Your task to perform on an android device: Search for vegetarian restaurants on Maps Image 0: 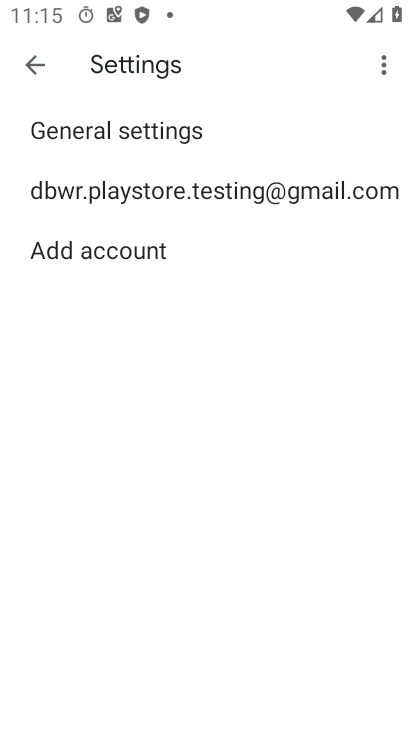
Step 0: click (27, 75)
Your task to perform on an android device: Search for vegetarian restaurants on Maps Image 1: 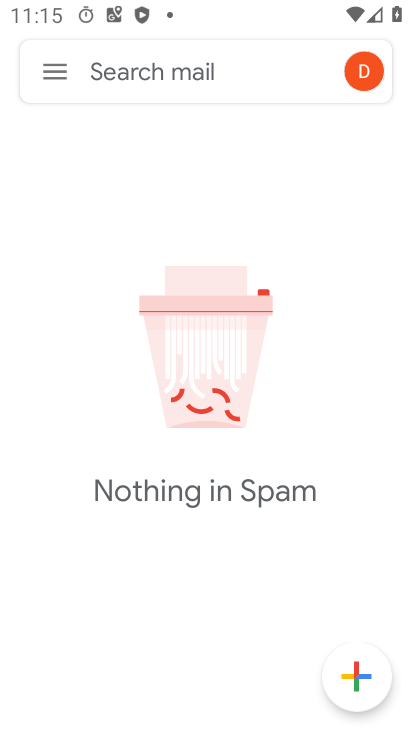
Step 1: press home button
Your task to perform on an android device: Search for vegetarian restaurants on Maps Image 2: 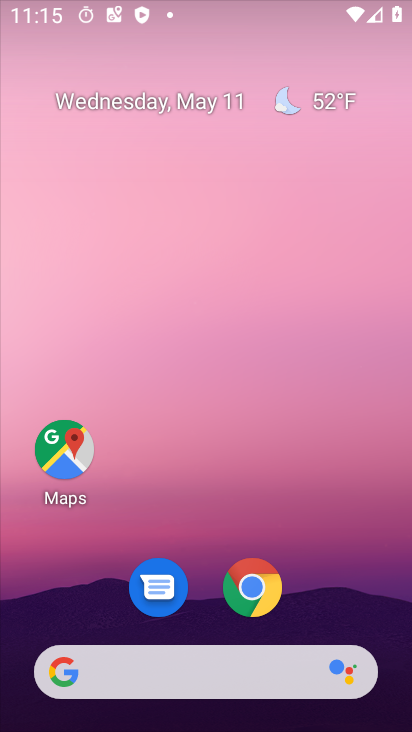
Step 2: drag from (240, 692) to (316, 274)
Your task to perform on an android device: Search for vegetarian restaurants on Maps Image 3: 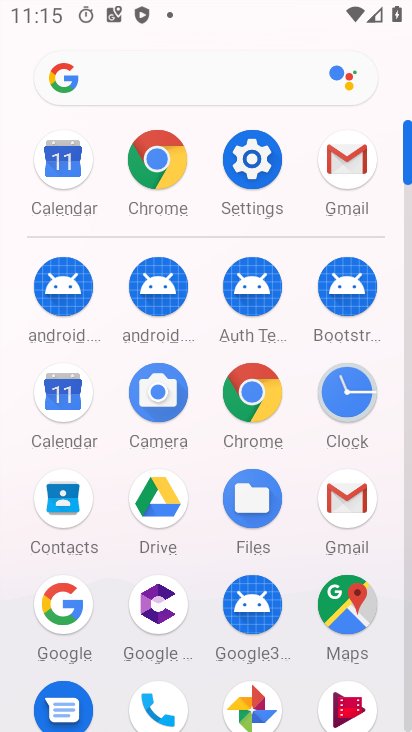
Step 3: click (346, 587)
Your task to perform on an android device: Search for vegetarian restaurants on Maps Image 4: 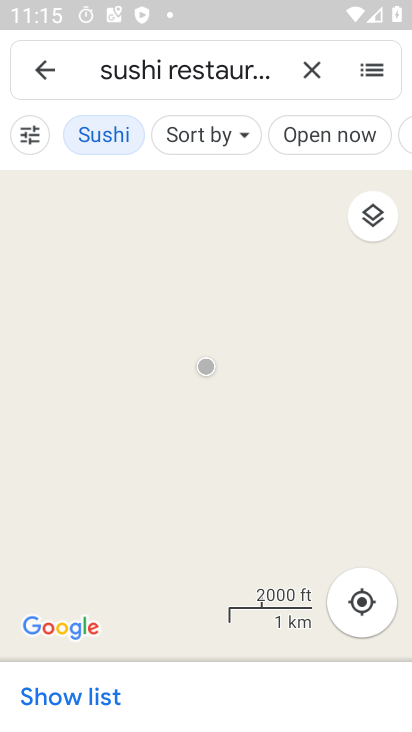
Step 4: click (307, 70)
Your task to perform on an android device: Search for vegetarian restaurants on Maps Image 5: 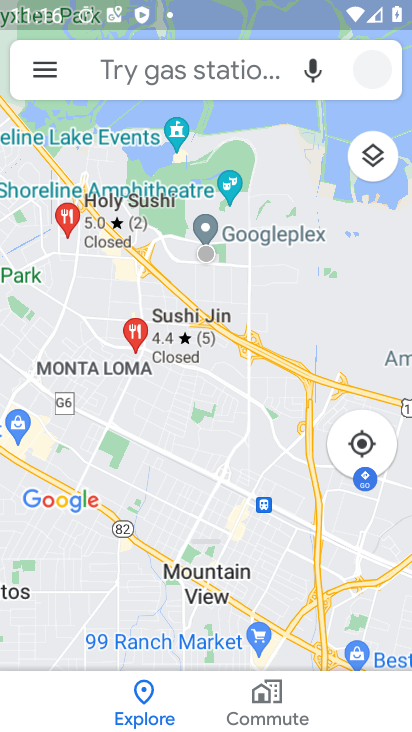
Step 5: click (172, 79)
Your task to perform on an android device: Search for vegetarian restaurants on Maps Image 6: 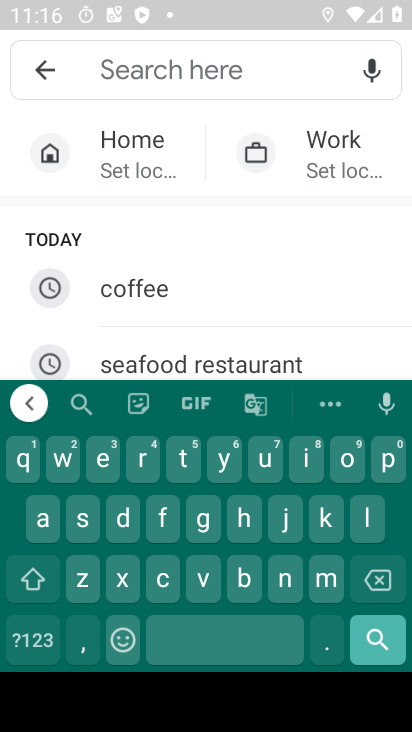
Step 6: click (198, 581)
Your task to perform on an android device: Search for vegetarian restaurants on Maps Image 7: 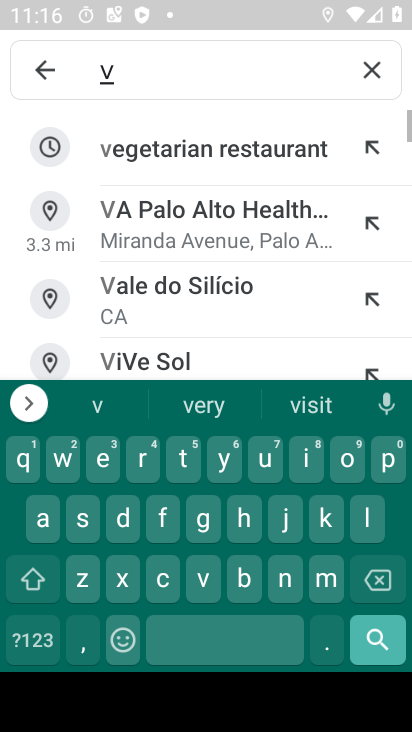
Step 7: click (146, 163)
Your task to perform on an android device: Search for vegetarian restaurants on Maps Image 8: 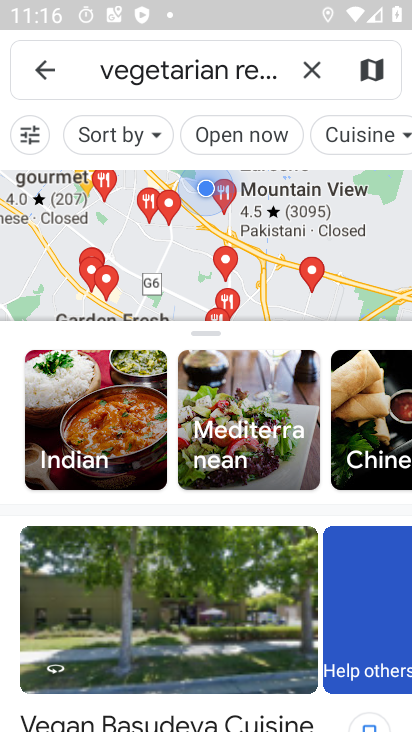
Step 8: task complete